Your task to perform on an android device: Do I have any events this weekend? Image 0: 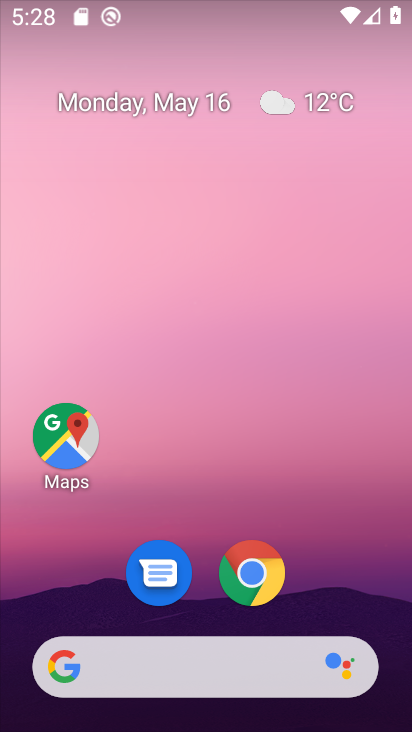
Step 0: drag from (206, 573) to (303, 83)
Your task to perform on an android device: Do I have any events this weekend? Image 1: 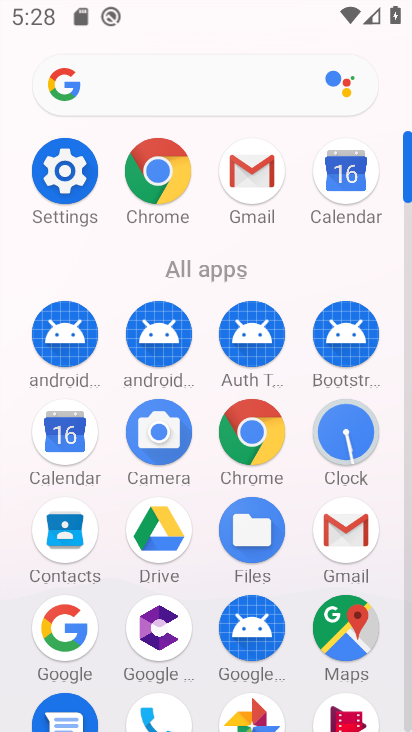
Step 1: click (65, 439)
Your task to perform on an android device: Do I have any events this weekend? Image 2: 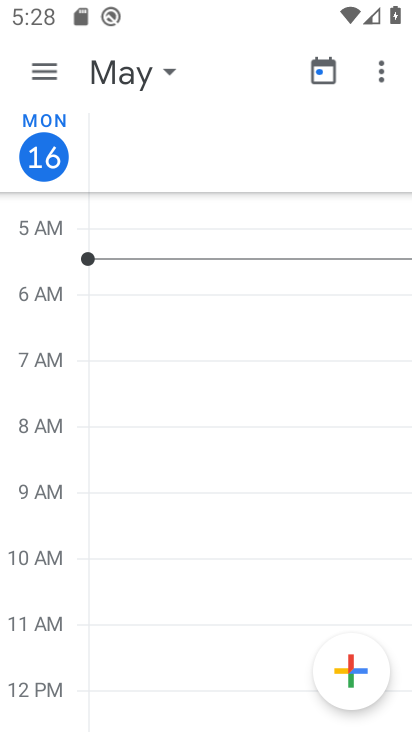
Step 2: click (45, 59)
Your task to perform on an android device: Do I have any events this weekend? Image 3: 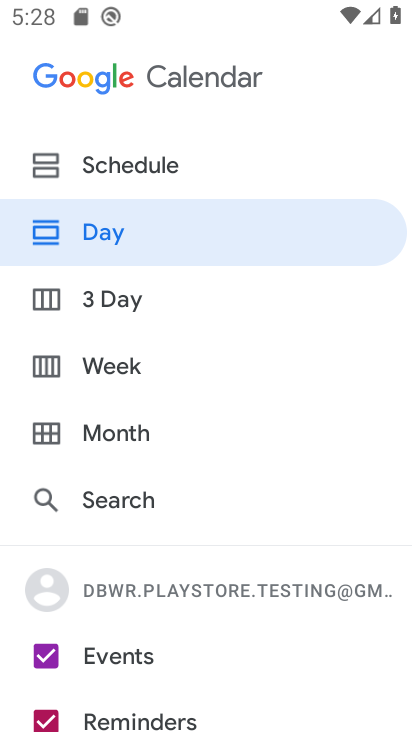
Step 3: click (102, 177)
Your task to perform on an android device: Do I have any events this weekend? Image 4: 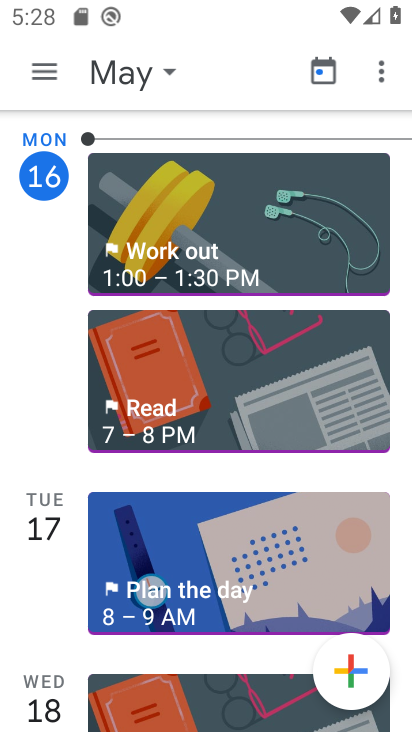
Step 4: drag from (246, 635) to (328, 205)
Your task to perform on an android device: Do I have any events this weekend? Image 5: 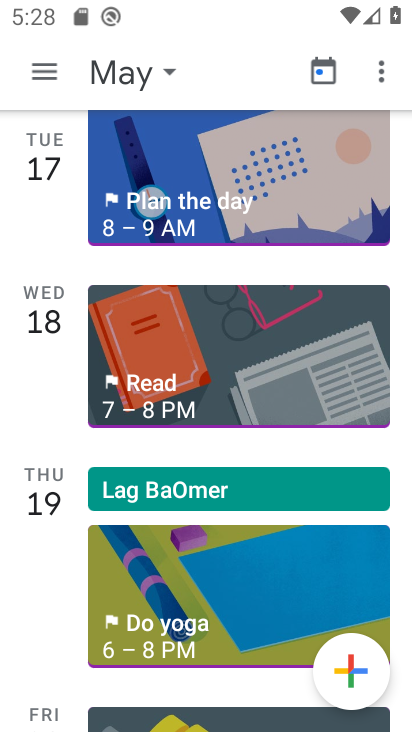
Step 5: drag from (194, 547) to (230, 170)
Your task to perform on an android device: Do I have any events this weekend? Image 6: 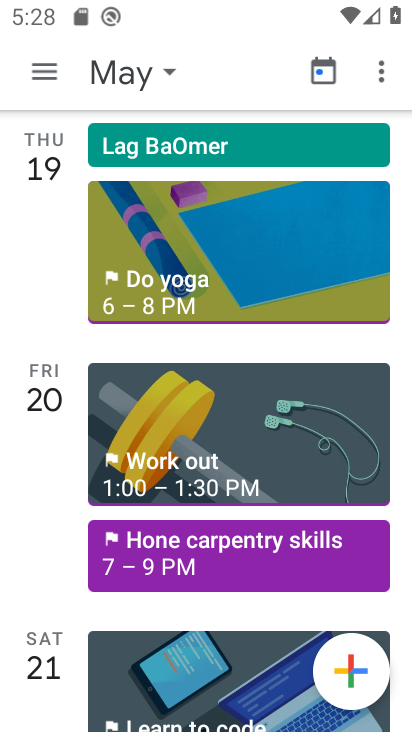
Step 6: drag from (141, 535) to (182, 262)
Your task to perform on an android device: Do I have any events this weekend? Image 7: 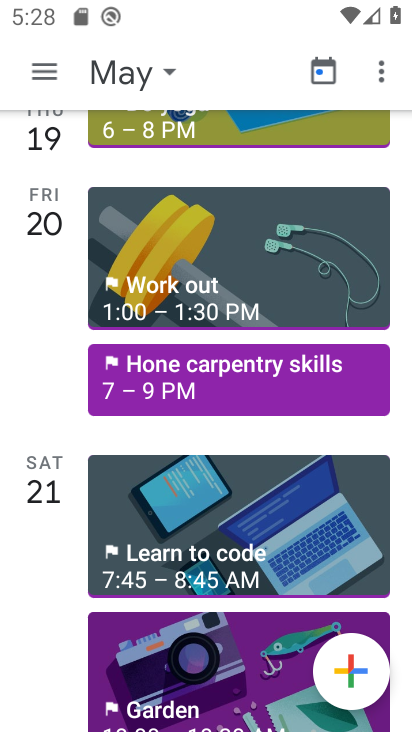
Step 7: click (166, 673)
Your task to perform on an android device: Do I have any events this weekend? Image 8: 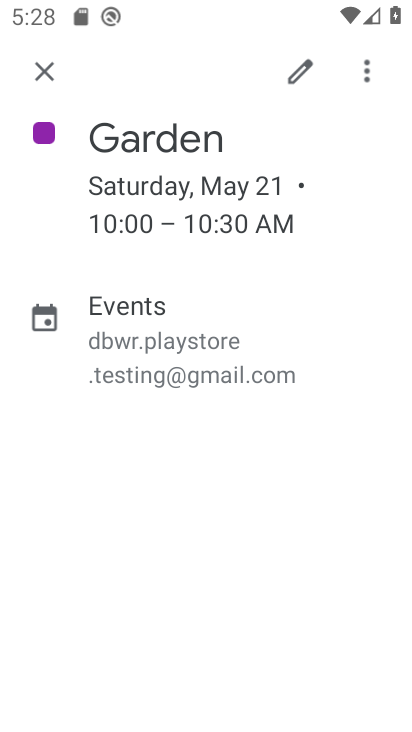
Step 8: task complete